Your task to perform on an android device: Play the last video I watched on Youtube Image 0: 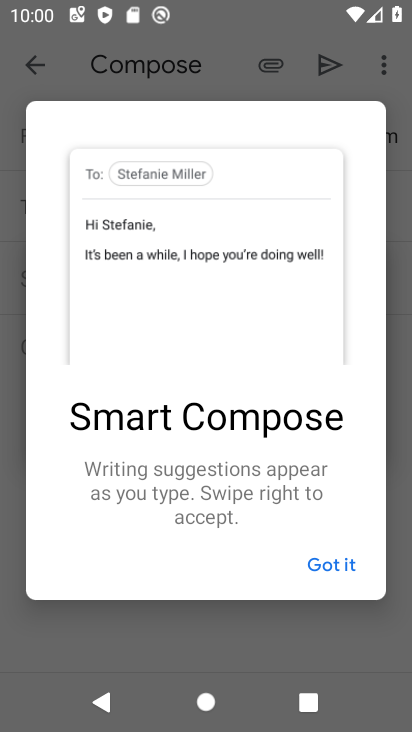
Step 0: press home button
Your task to perform on an android device: Play the last video I watched on Youtube Image 1: 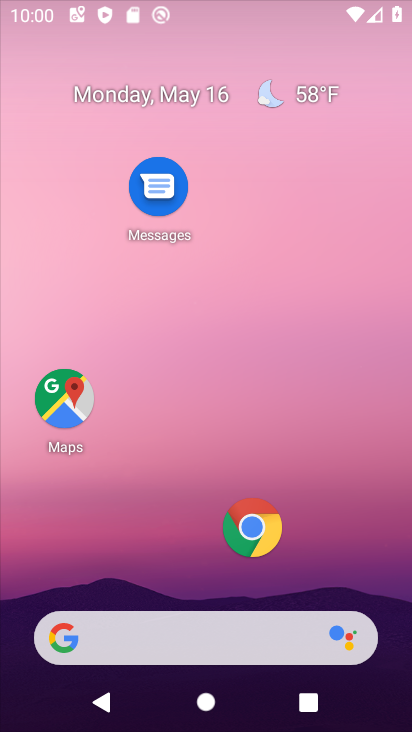
Step 1: drag from (184, 522) to (196, 29)
Your task to perform on an android device: Play the last video I watched on Youtube Image 2: 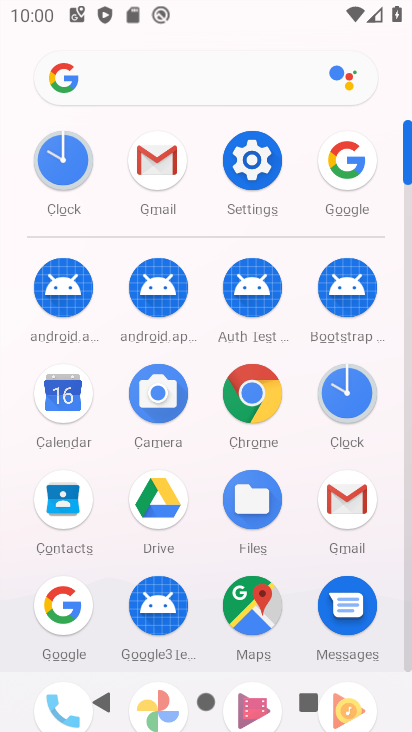
Step 2: drag from (300, 508) to (297, 61)
Your task to perform on an android device: Play the last video I watched on Youtube Image 3: 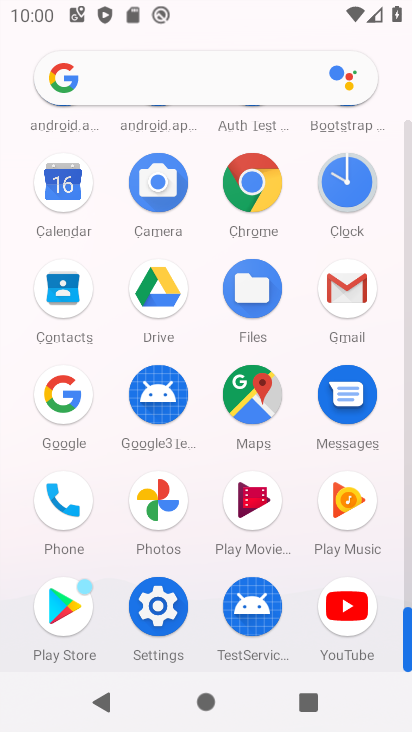
Step 3: click (361, 588)
Your task to perform on an android device: Play the last video I watched on Youtube Image 4: 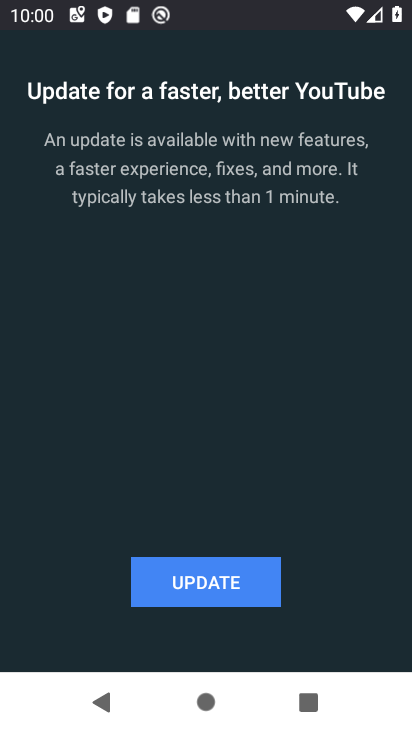
Step 4: click (220, 575)
Your task to perform on an android device: Play the last video I watched on Youtube Image 5: 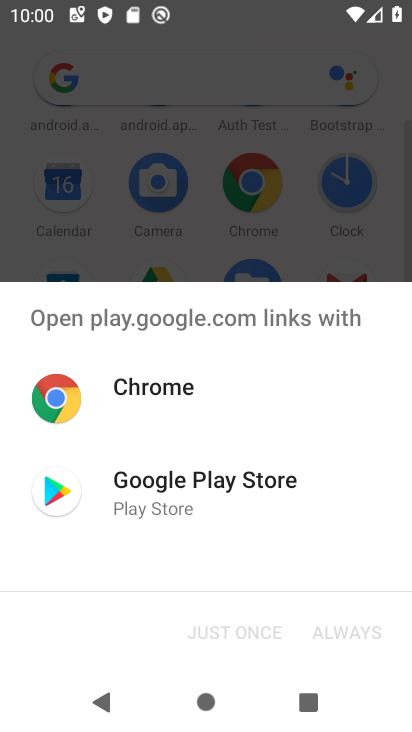
Step 5: click (141, 502)
Your task to perform on an android device: Play the last video I watched on Youtube Image 6: 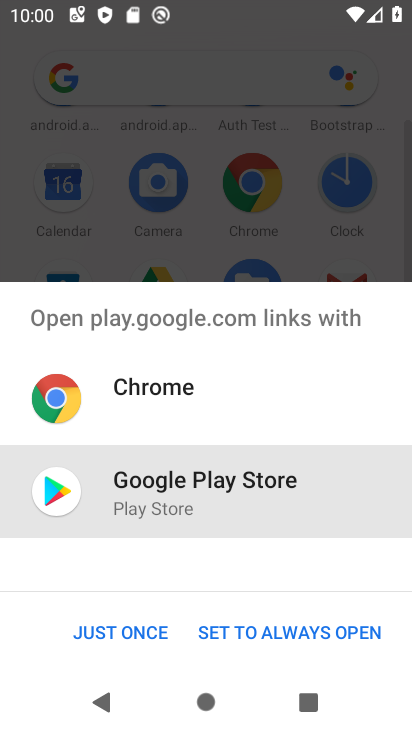
Step 6: click (92, 622)
Your task to perform on an android device: Play the last video I watched on Youtube Image 7: 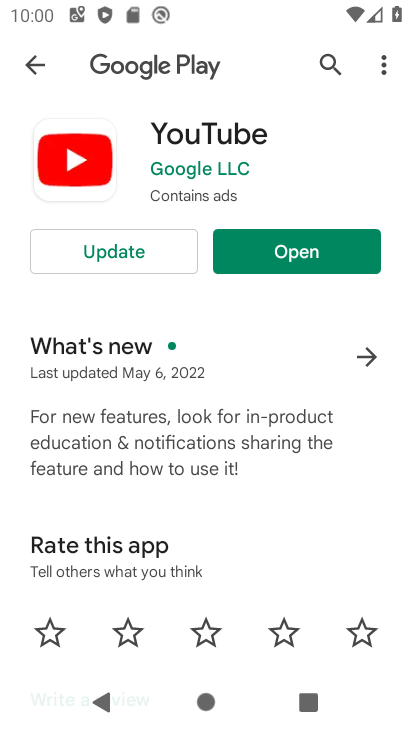
Step 7: click (274, 261)
Your task to perform on an android device: Play the last video I watched on Youtube Image 8: 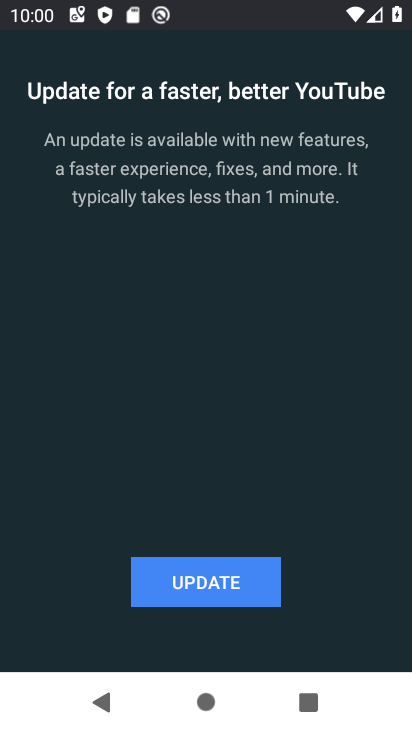
Step 8: click (211, 562)
Your task to perform on an android device: Play the last video I watched on Youtube Image 9: 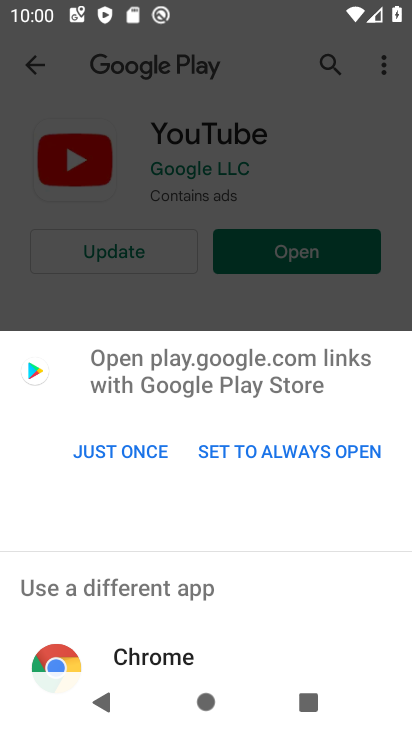
Step 9: drag from (158, 633) to (177, 330)
Your task to perform on an android device: Play the last video I watched on Youtube Image 10: 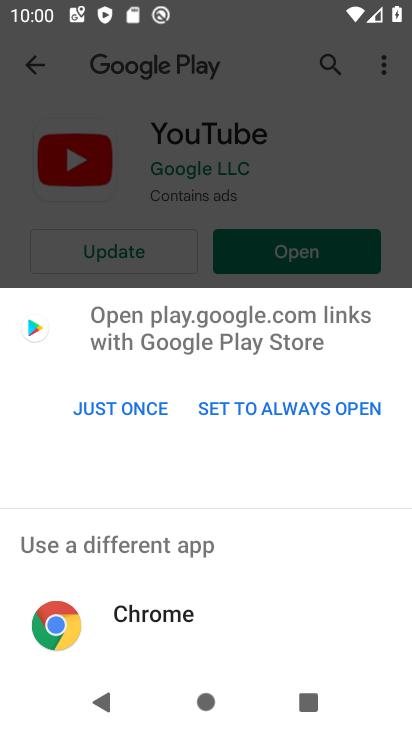
Step 10: click (143, 416)
Your task to perform on an android device: Play the last video I watched on Youtube Image 11: 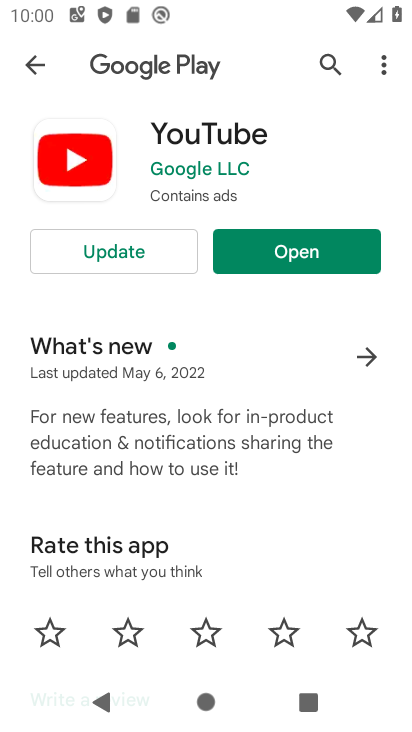
Step 11: click (125, 257)
Your task to perform on an android device: Play the last video I watched on Youtube Image 12: 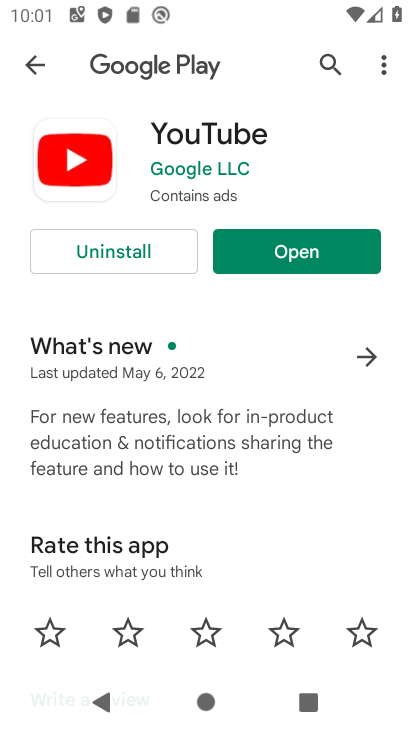
Step 12: click (274, 252)
Your task to perform on an android device: Play the last video I watched on Youtube Image 13: 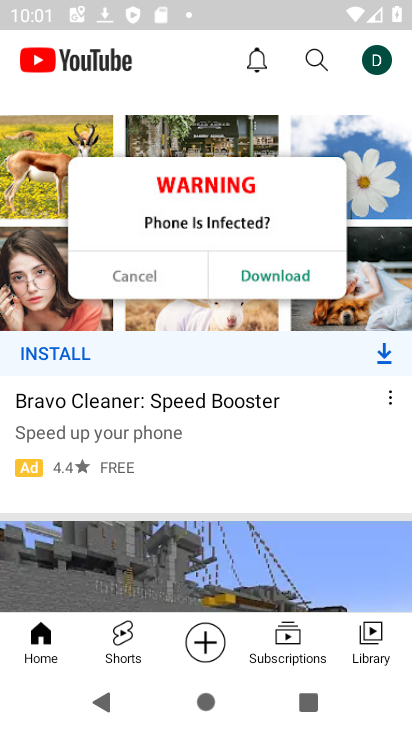
Step 13: click (315, 58)
Your task to perform on an android device: Play the last video I watched on Youtube Image 14: 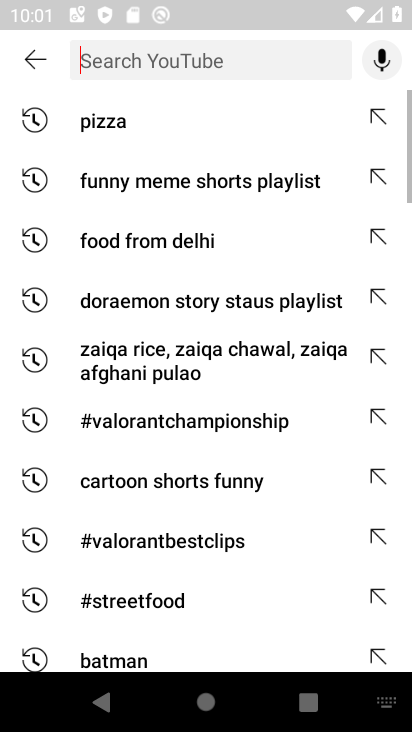
Step 14: click (126, 124)
Your task to perform on an android device: Play the last video I watched on Youtube Image 15: 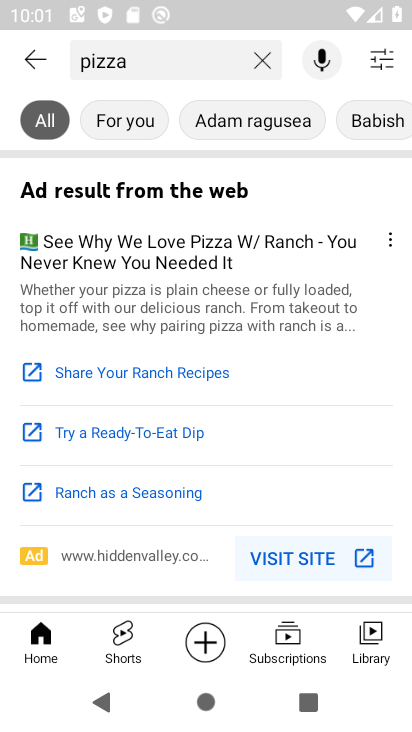
Step 15: drag from (246, 515) to (220, 111)
Your task to perform on an android device: Play the last video I watched on Youtube Image 16: 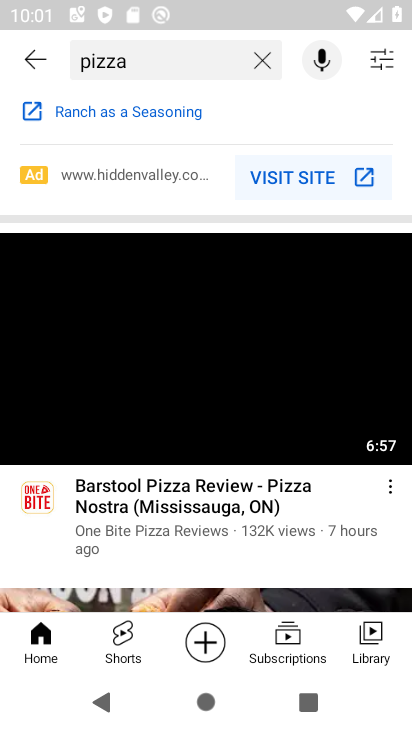
Step 16: click (152, 400)
Your task to perform on an android device: Play the last video I watched on Youtube Image 17: 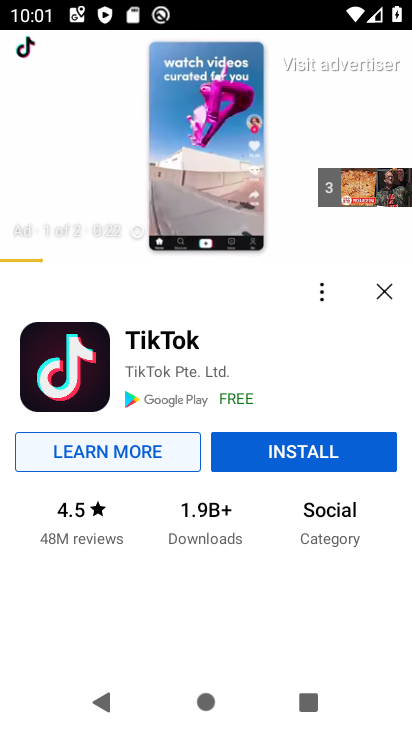
Step 17: click (374, 293)
Your task to perform on an android device: Play the last video I watched on Youtube Image 18: 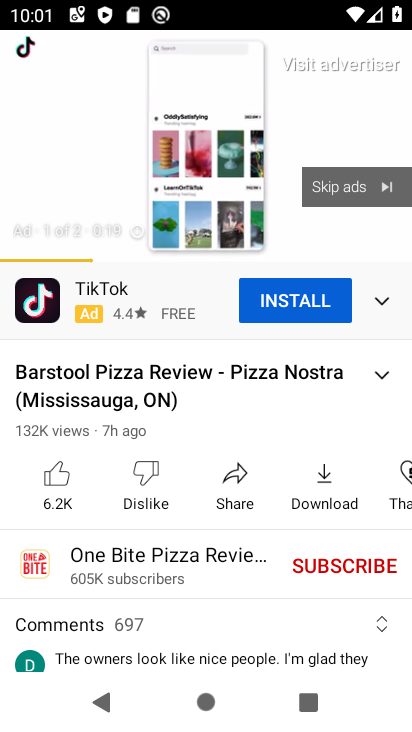
Step 18: click (349, 194)
Your task to perform on an android device: Play the last video I watched on Youtube Image 19: 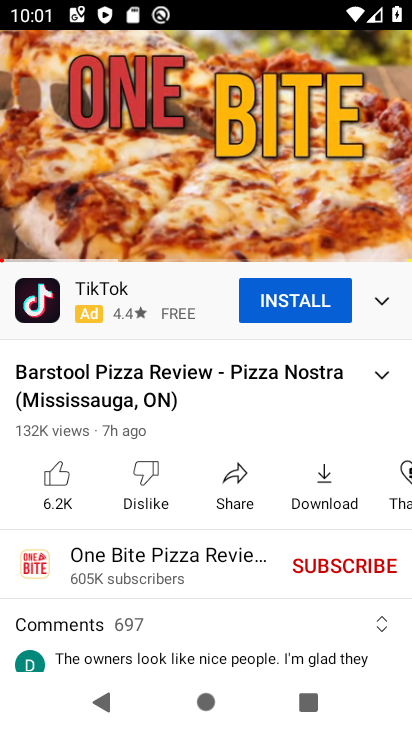
Step 19: task complete